Your task to perform on an android device: remove spam from my inbox in the gmail app Image 0: 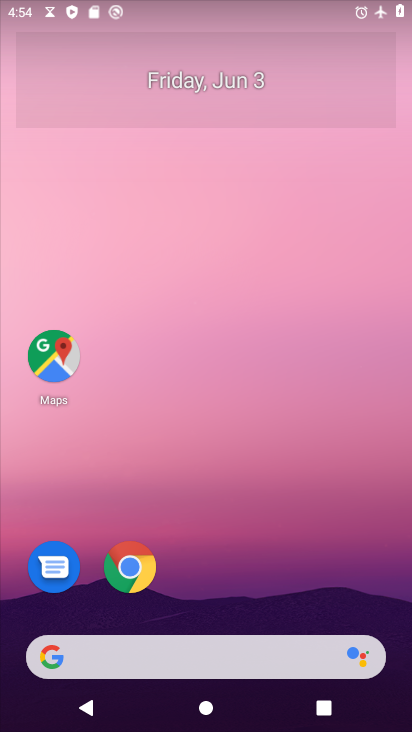
Step 0: drag from (302, 516) to (184, 10)
Your task to perform on an android device: remove spam from my inbox in the gmail app Image 1: 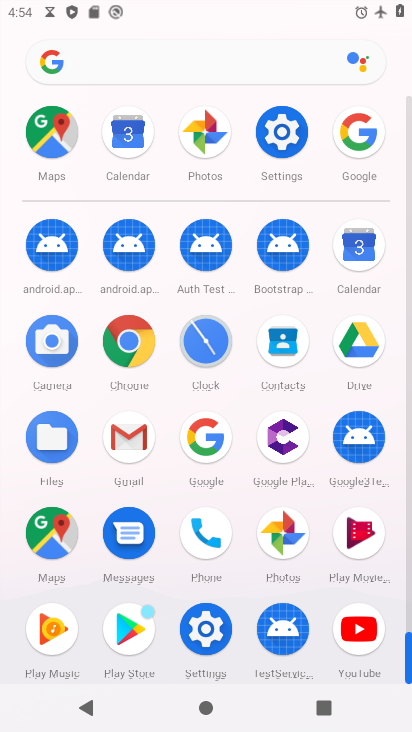
Step 1: click (130, 436)
Your task to perform on an android device: remove spam from my inbox in the gmail app Image 2: 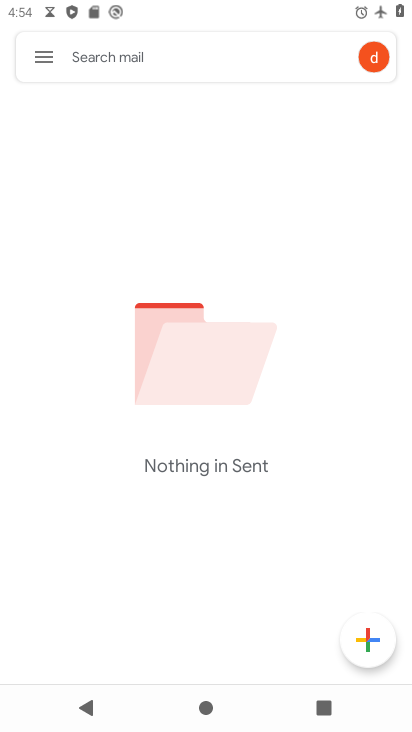
Step 2: click (39, 64)
Your task to perform on an android device: remove spam from my inbox in the gmail app Image 3: 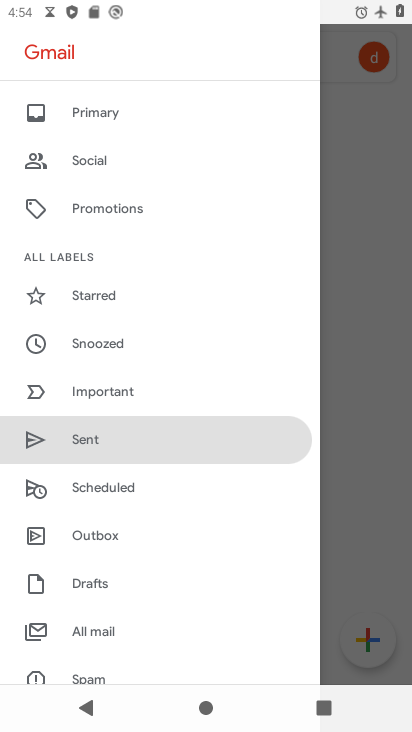
Step 3: drag from (166, 531) to (201, 399)
Your task to perform on an android device: remove spam from my inbox in the gmail app Image 4: 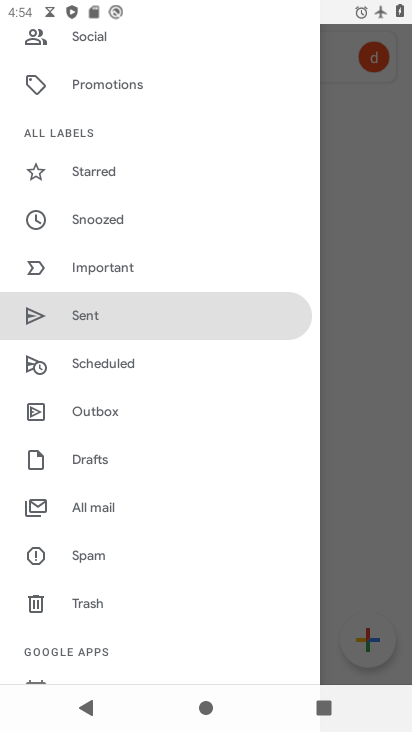
Step 4: drag from (135, 520) to (170, 431)
Your task to perform on an android device: remove spam from my inbox in the gmail app Image 5: 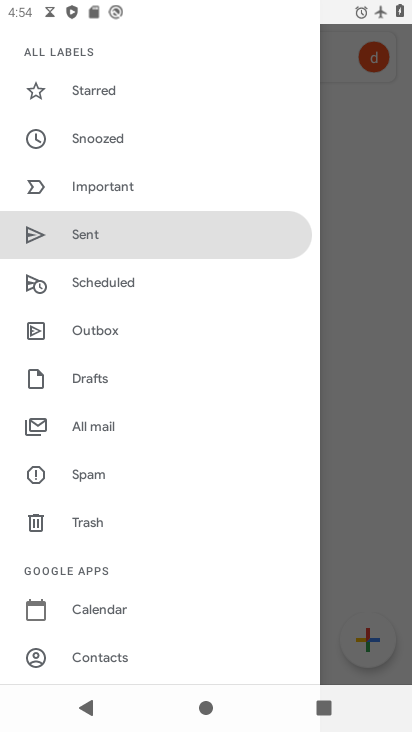
Step 5: click (97, 487)
Your task to perform on an android device: remove spam from my inbox in the gmail app Image 6: 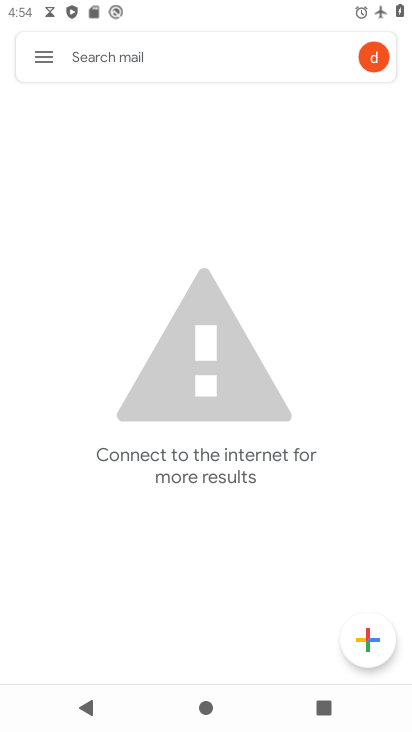
Step 6: task complete